Your task to perform on an android device: Open the map Image 0: 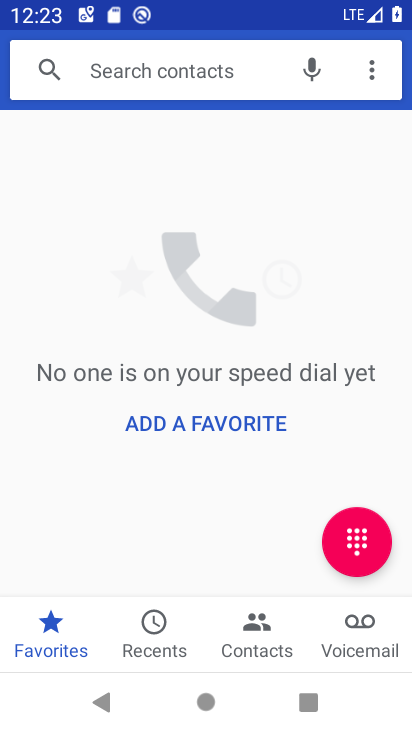
Step 0: press home button
Your task to perform on an android device: Open the map Image 1: 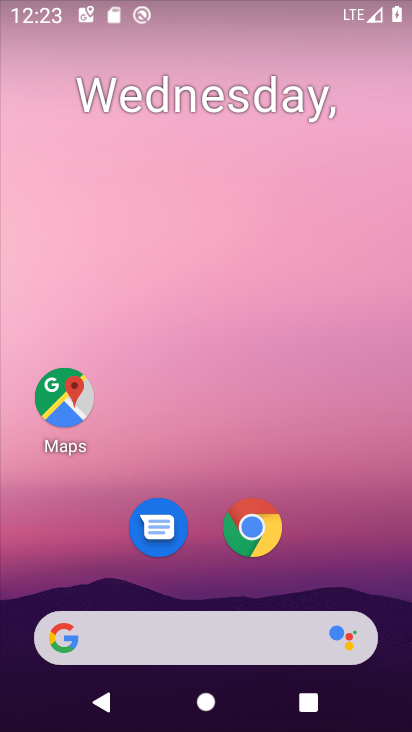
Step 1: drag from (341, 599) to (325, 23)
Your task to perform on an android device: Open the map Image 2: 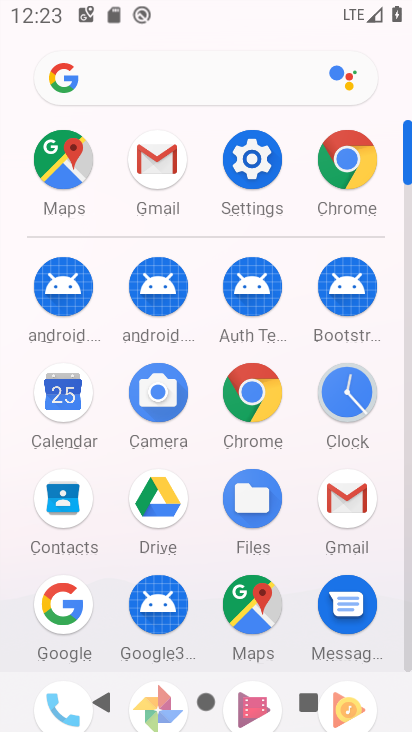
Step 2: click (247, 628)
Your task to perform on an android device: Open the map Image 3: 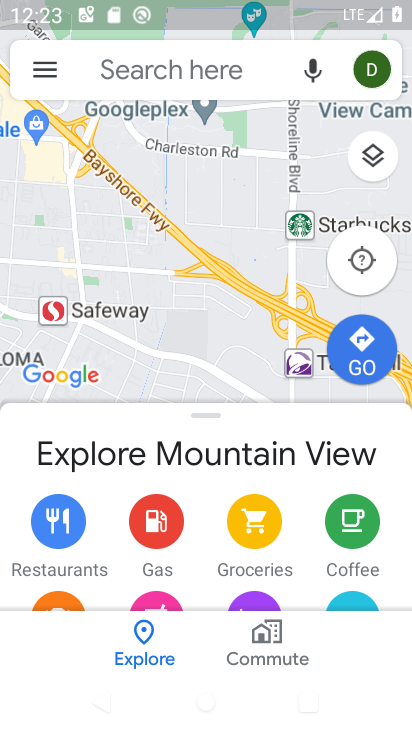
Step 3: task complete